Your task to perform on an android device: delete browsing data in the chrome app Image 0: 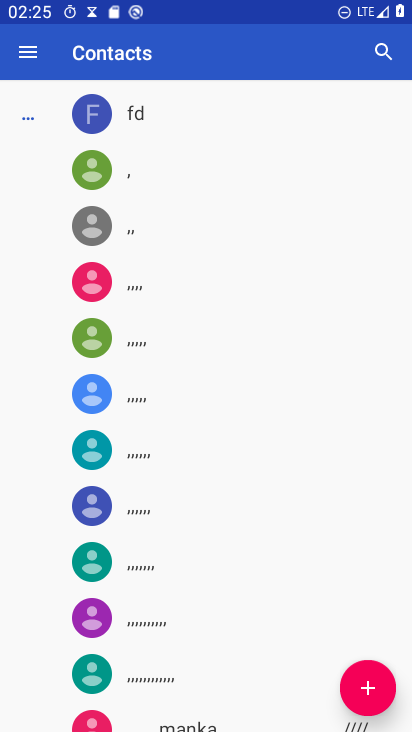
Step 0: press home button
Your task to perform on an android device: delete browsing data in the chrome app Image 1: 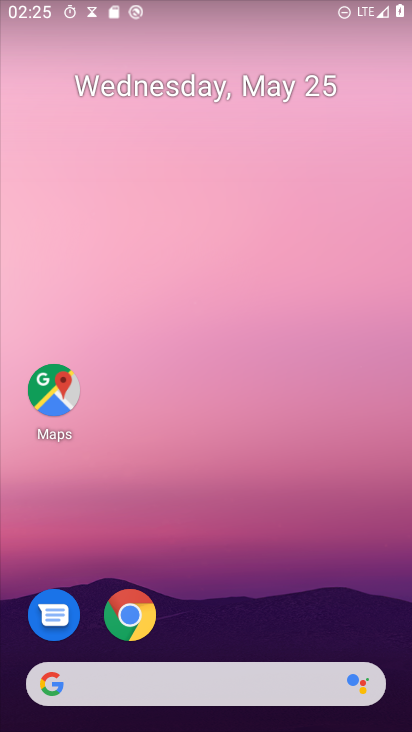
Step 1: drag from (278, 577) to (351, 175)
Your task to perform on an android device: delete browsing data in the chrome app Image 2: 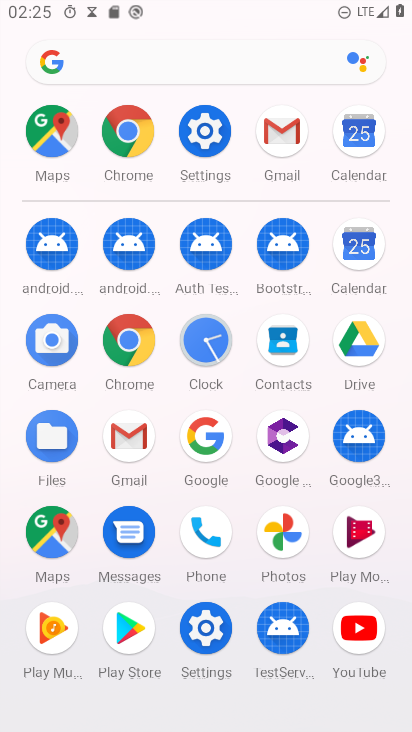
Step 2: click (127, 145)
Your task to perform on an android device: delete browsing data in the chrome app Image 3: 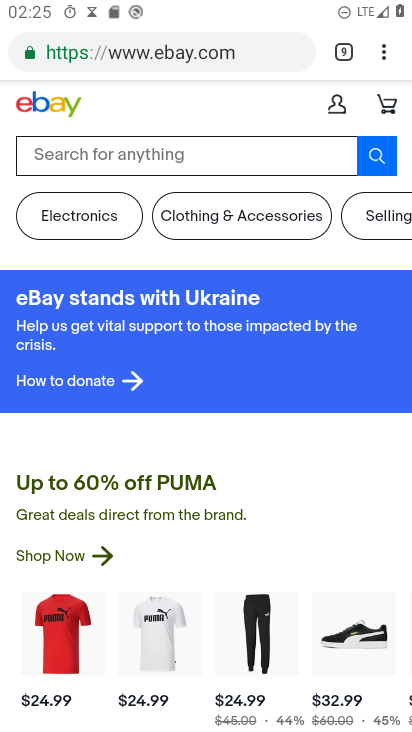
Step 3: click (386, 68)
Your task to perform on an android device: delete browsing data in the chrome app Image 4: 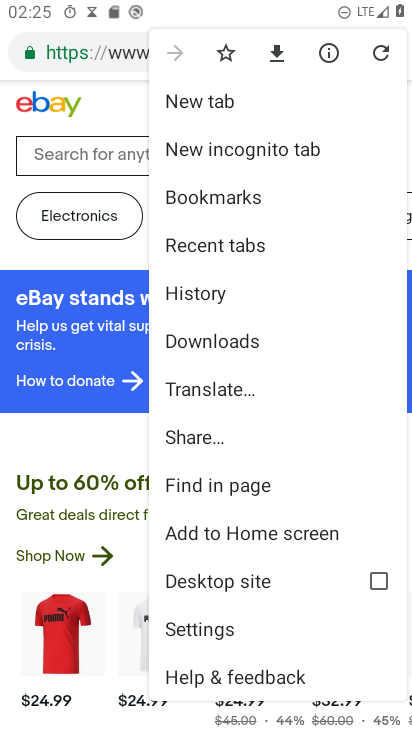
Step 4: click (208, 633)
Your task to perform on an android device: delete browsing data in the chrome app Image 5: 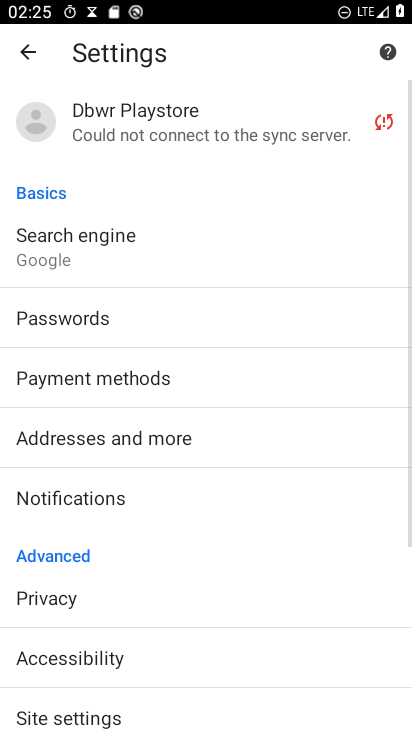
Step 5: click (125, 608)
Your task to perform on an android device: delete browsing data in the chrome app Image 6: 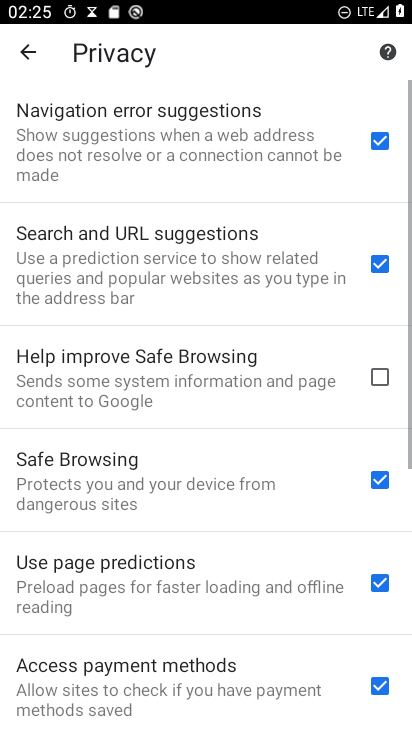
Step 6: drag from (126, 607) to (201, 136)
Your task to perform on an android device: delete browsing data in the chrome app Image 7: 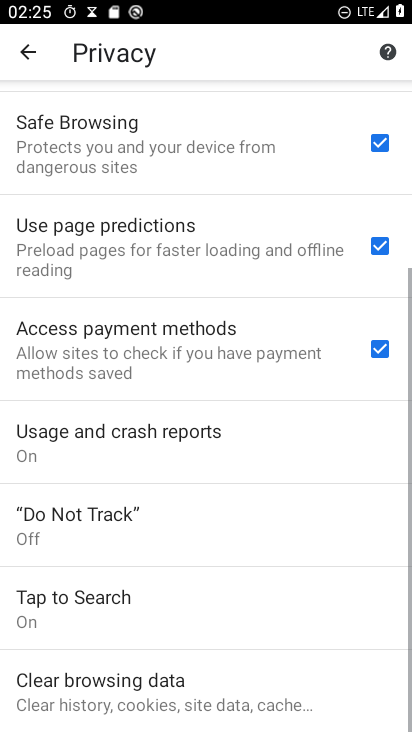
Step 7: click (156, 678)
Your task to perform on an android device: delete browsing data in the chrome app Image 8: 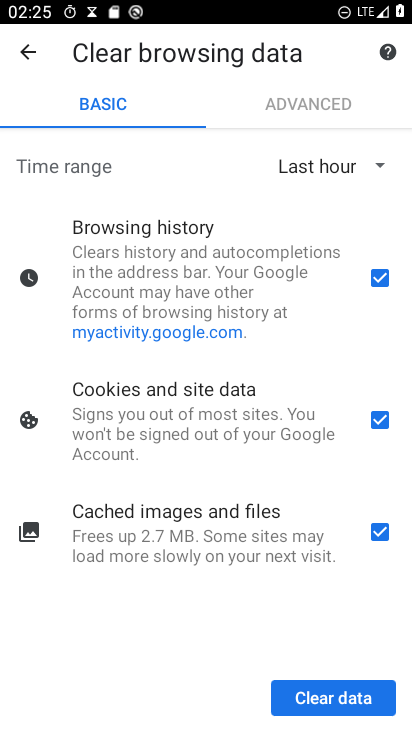
Step 8: click (369, 408)
Your task to perform on an android device: delete browsing data in the chrome app Image 9: 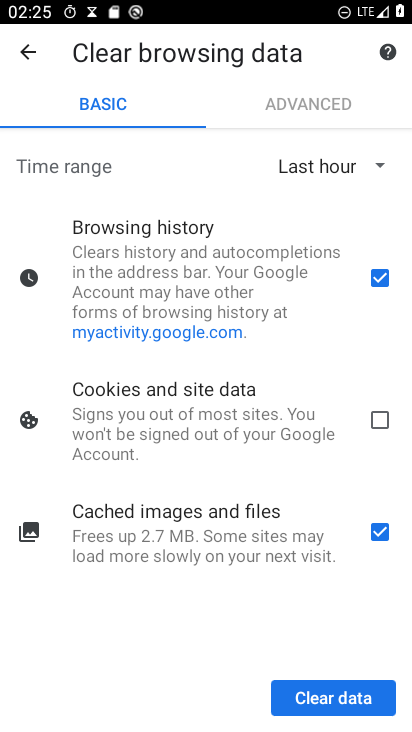
Step 9: click (381, 533)
Your task to perform on an android device: delete browsing data in the chrome app Image 10: 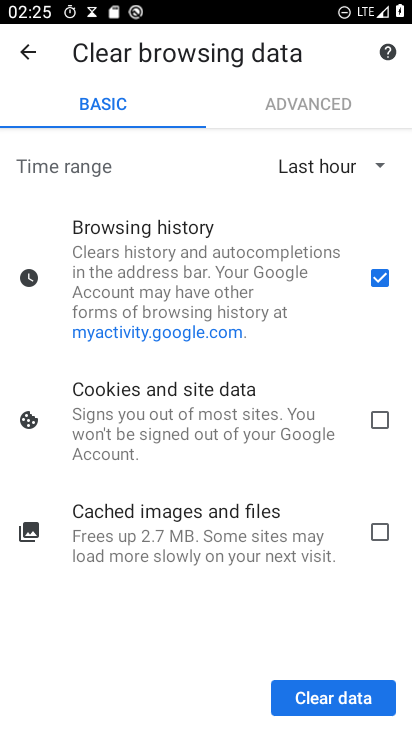
Step 10: click (343, 698)
Your task to perform on an android device: delete browsing data in the chrome app Image 11: 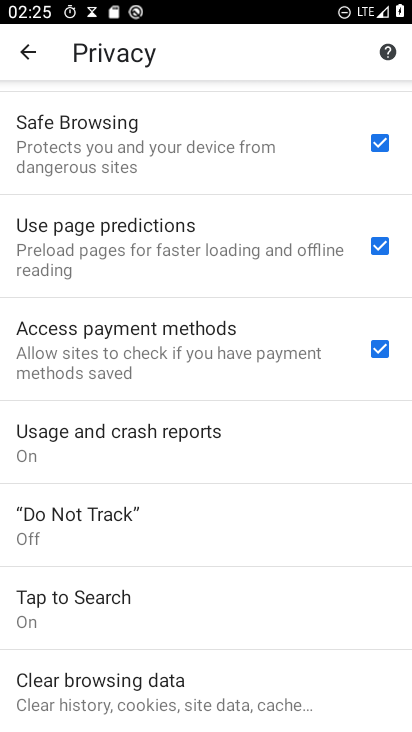
Step 11: task complete